Your task to perform on an android device: Play the last video I watched on Youtube Image 0: 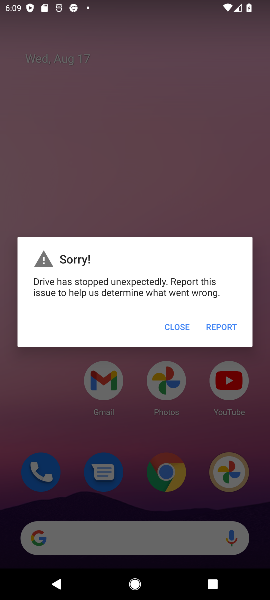
Step 0: click (184, 324)
Your task to perform on an android device: Play the last video I watched on Youtube Image 1: 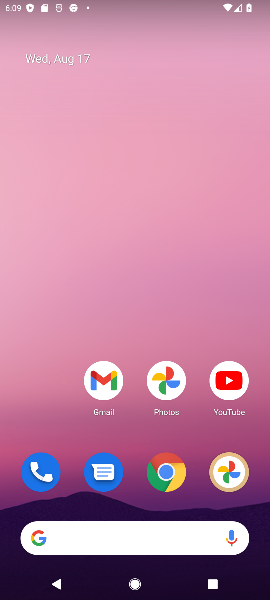
Step 1: click (229, 387)
Your task to perform on an android device: Play the last video I watched on Youtube Image 2: 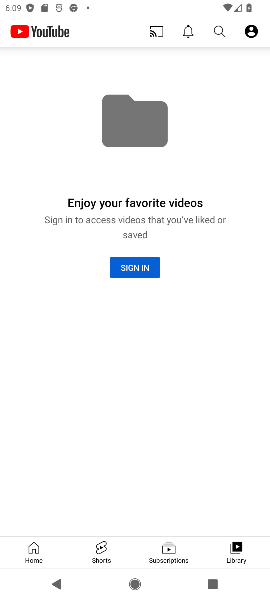
Step 2: click (226, 542)
Your task to perform on an android device: Play the last video I watched on Youtube Image 3: 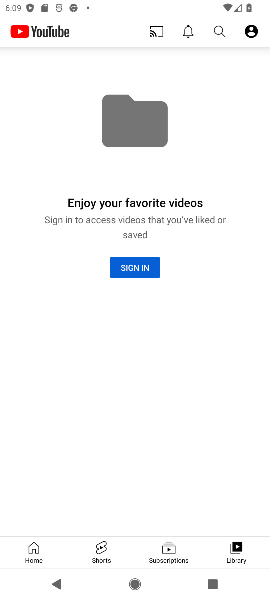
Step 3: task complete